Your task to perform on an android device: Open privacy settings Image 0: 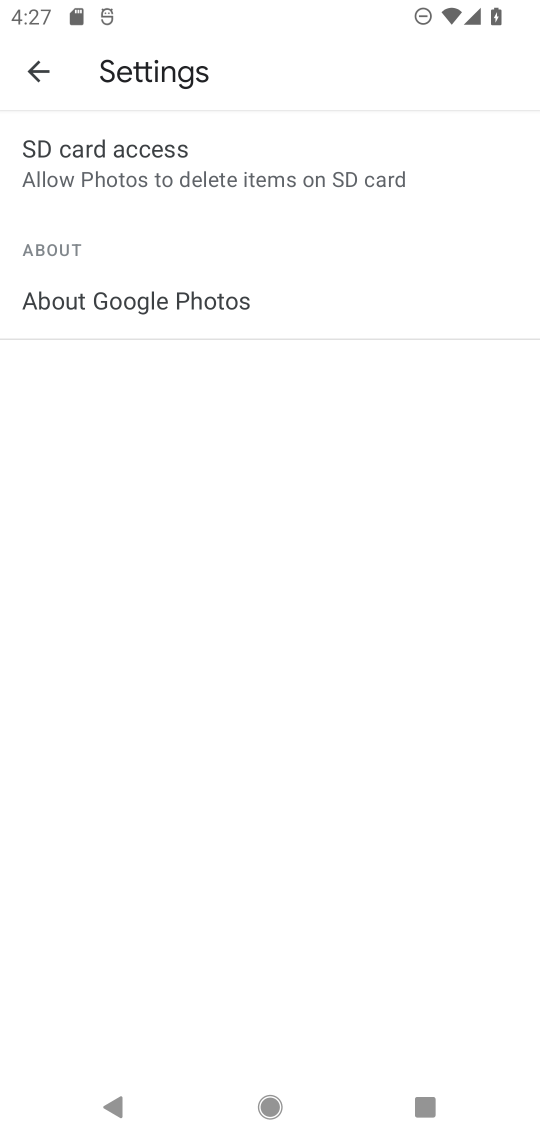
Step 0: press home button
Your task to perform on an android device: Open privacy settings Image 1: 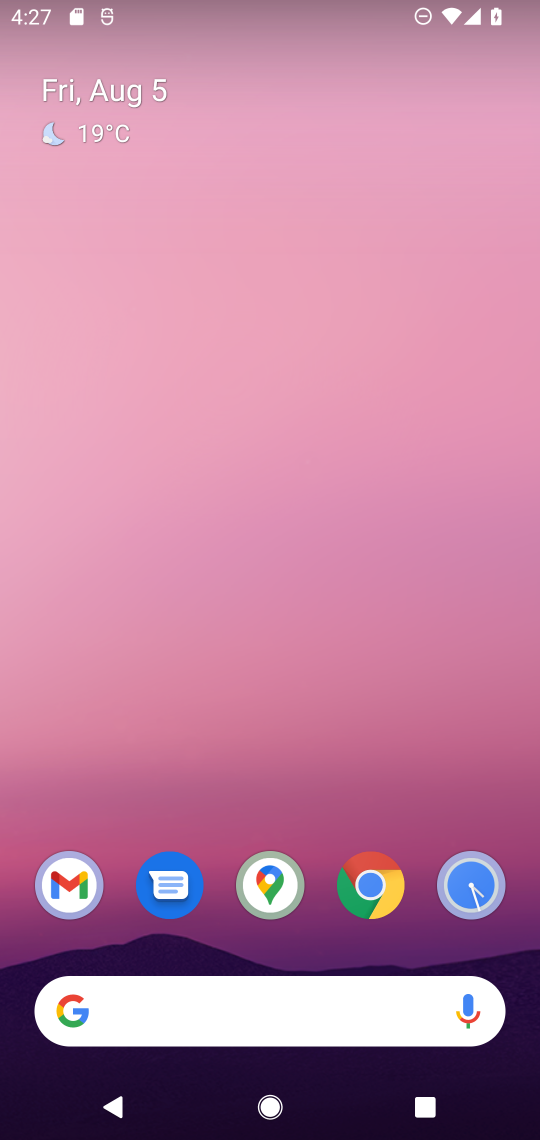
Step 1: drag from (325, 944) to (288, 71)
Your task to perform on an android device: Open privacy settings Image 2: 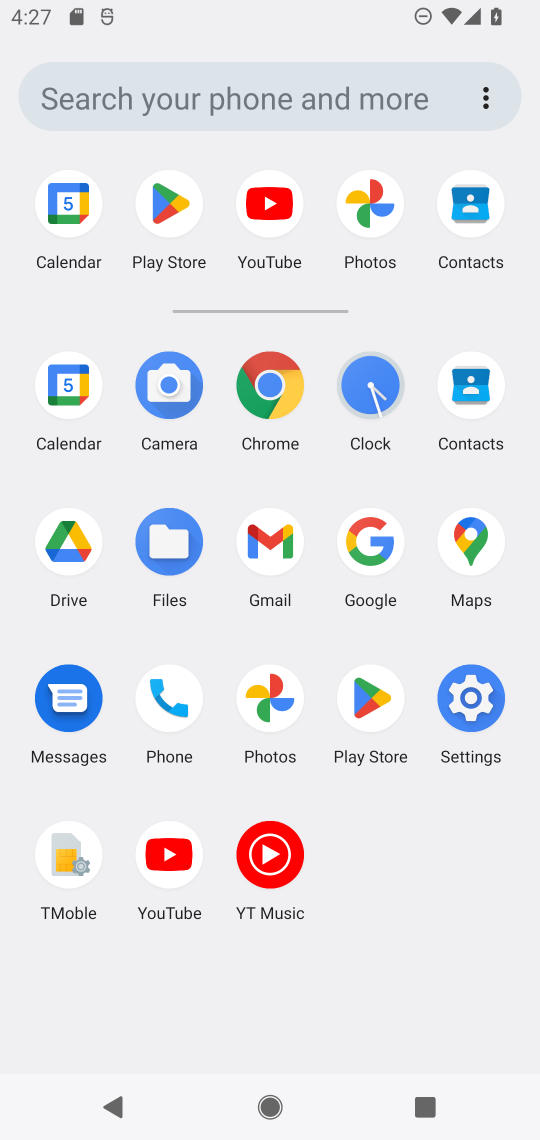
Step 2: click (453, 694)
Your task to perform on an android device: Open privacy settings Image 3: 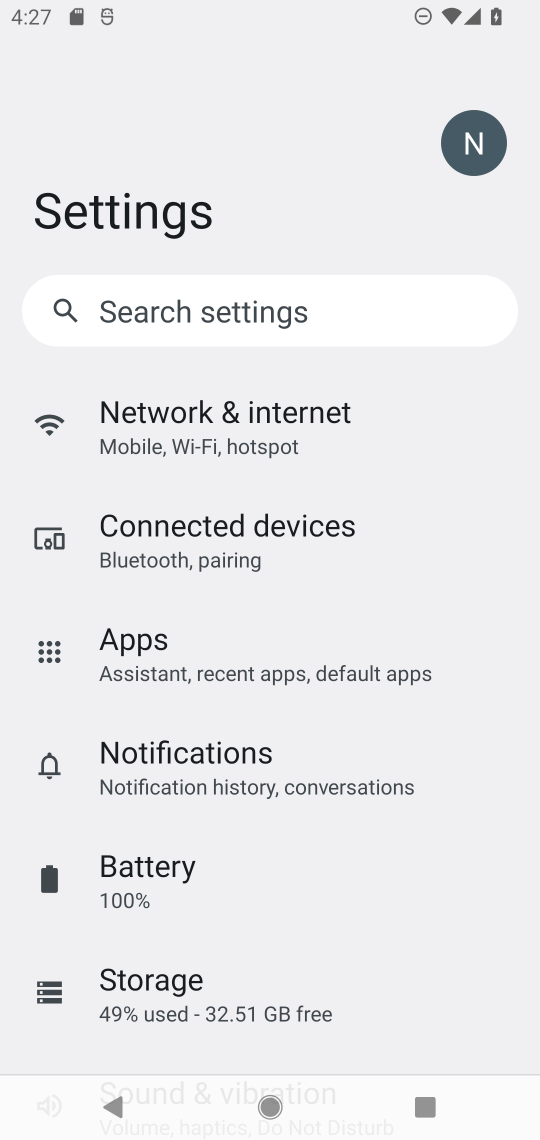
Step 3: drag from (236, 938) to (252, 565)
Your task to perform on an android device: Open privacy settings Image 4: 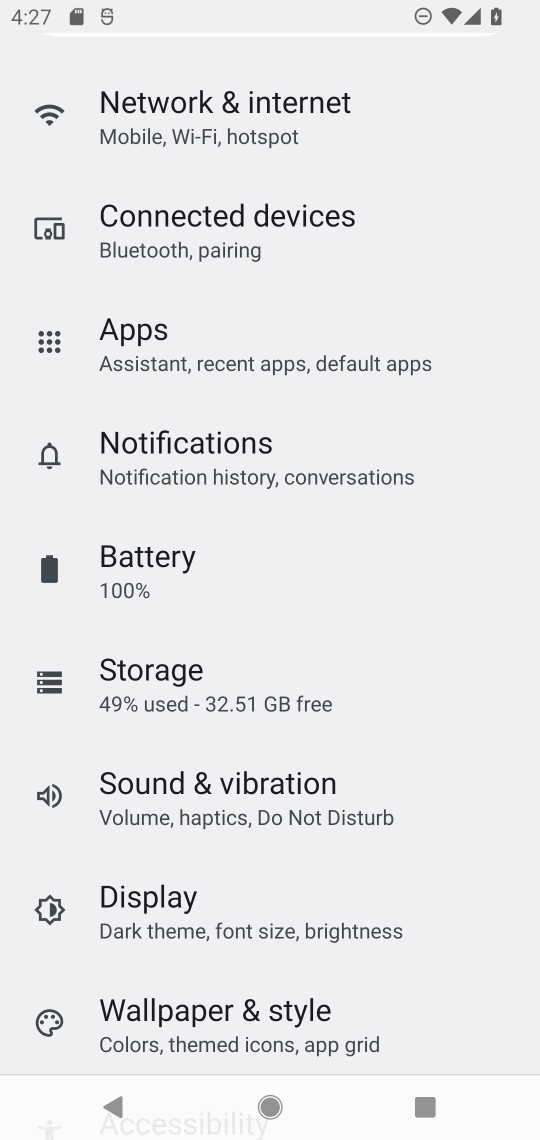
Step 4: drag from (236, 940) to (231, 412)
Your task to perform on an android device: Open privacy settings Image 5: 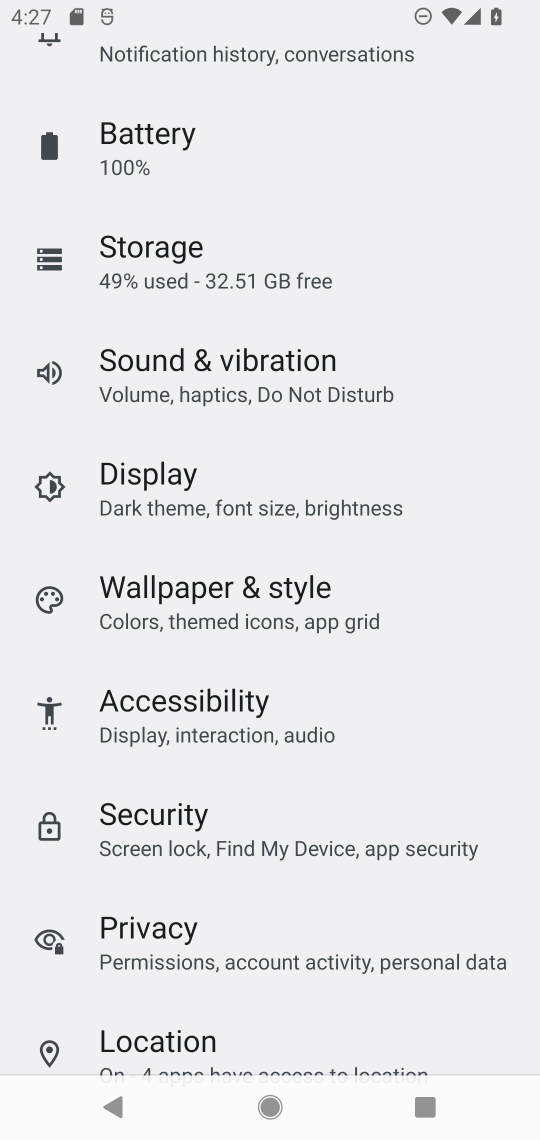
Step 5: click (150, 940)
Your task to perform on an android device: Open privacy settings Image 6: 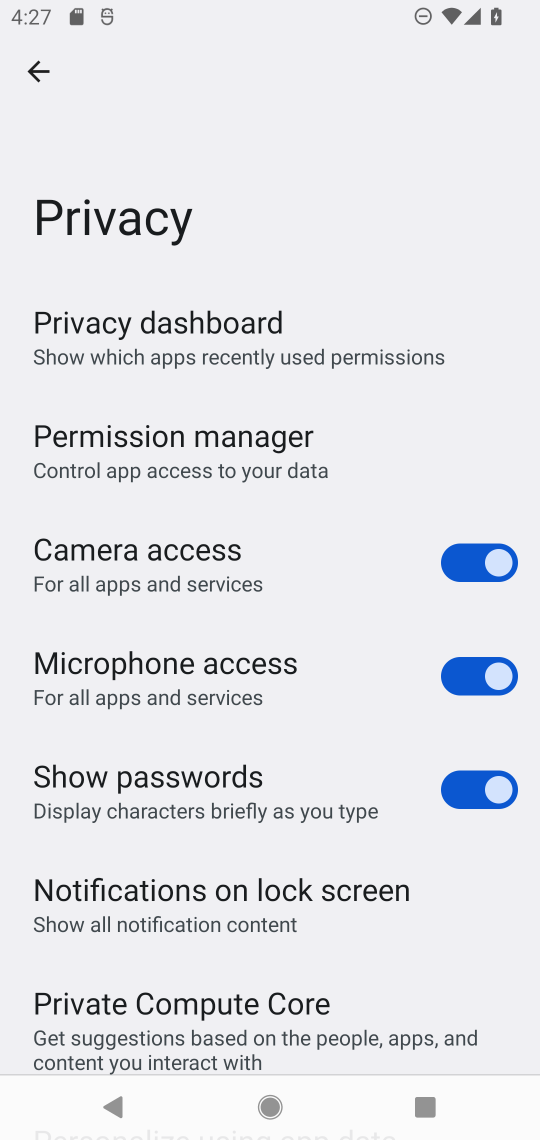
Step 6: task complete